Your task to perform on an android device: move an email to a new category in the gmail app Image 0: 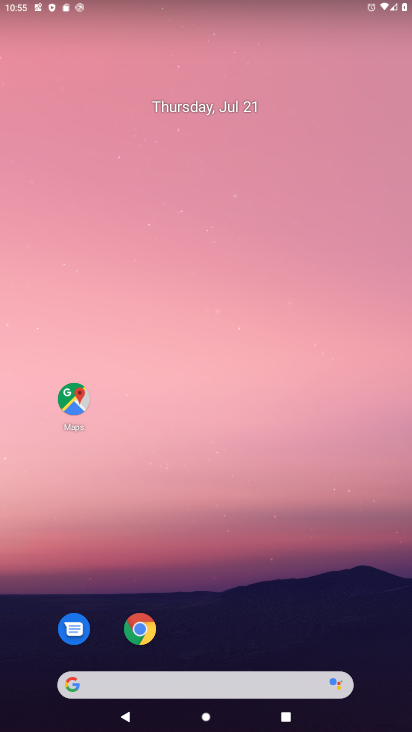
Step 0: drag from (157, 605) to (231, 156)
Your task to perform on an android device: move an email to a new category in the gmail app Image 1: 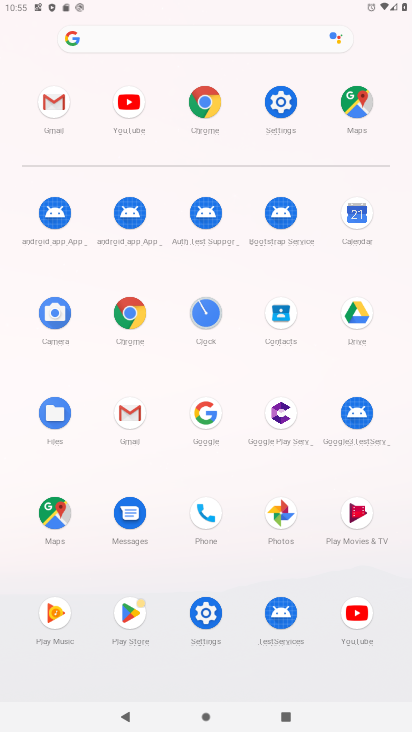
Step 1: click (61, 113)
Your task to perform on an android device: move an email to a new category in the gmail app Image 2: 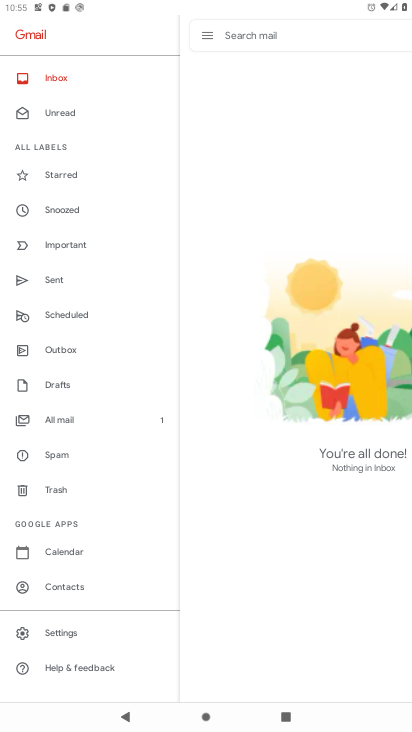
Step 2: click (82, 420)
Your task to perform on an android device: move an email to a new category in the gmail app Image 3: 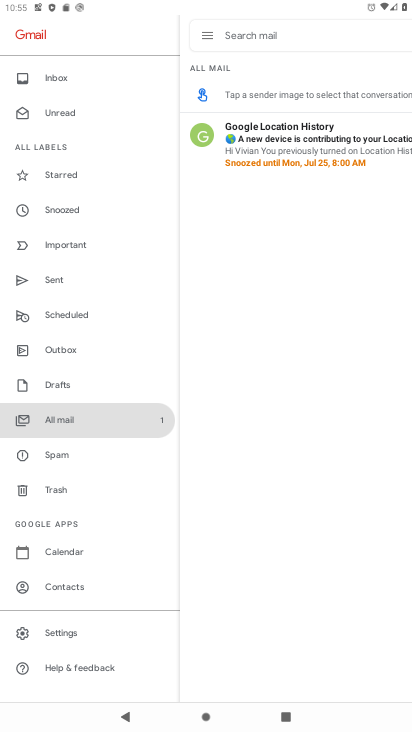
Step 3: click (214, 127)
Your task to perform on an android device: move an email to a new category in the gmail app Image 4: 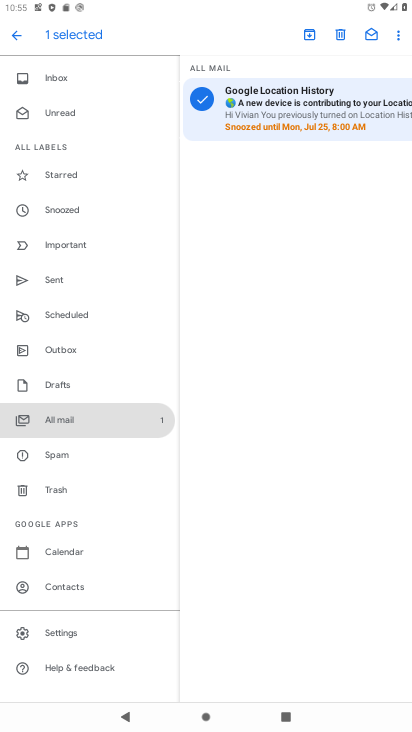
Step 4: click (395, 33)
Your task to perform on an android device: move an email to a new category in the gmail app Image 5: 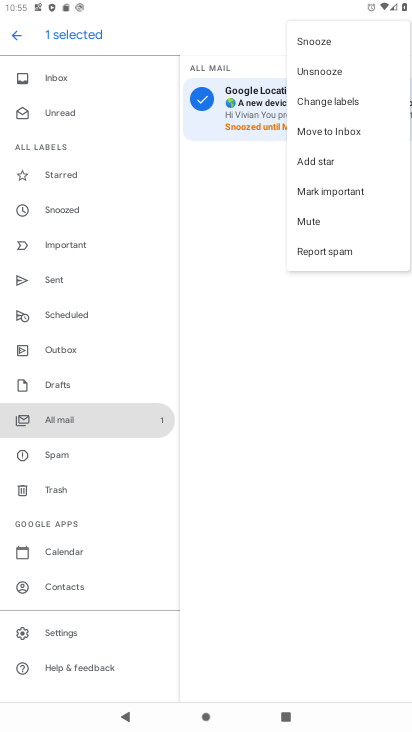
Step 5: click (341, 106)
Your task to perform on an android device: move an email to a new category in the gmail app Image 6: 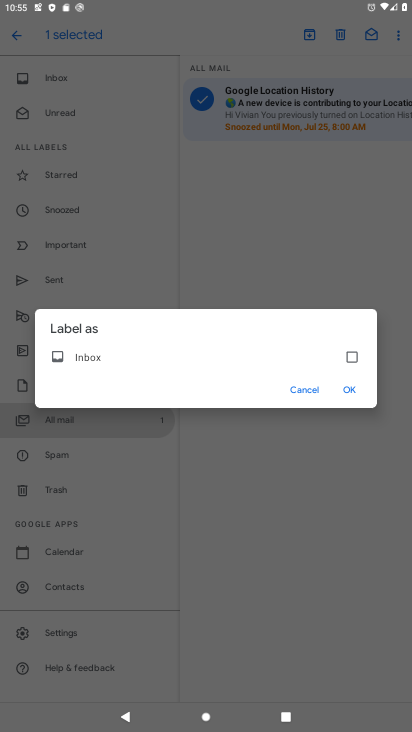
Step 6: click (353, 359)
Your task to perform on an android device: move an email to a new category in the gmail app Image 7: 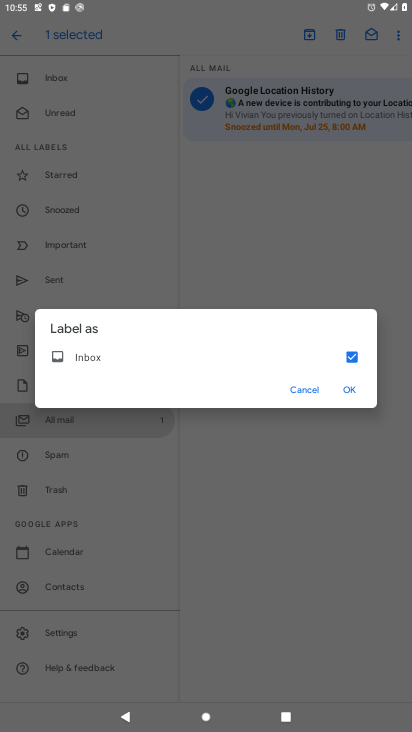
Step 7: click (345, 394)
Your task to perform on an android device: move an email to a new category in the gmail app Image 8: 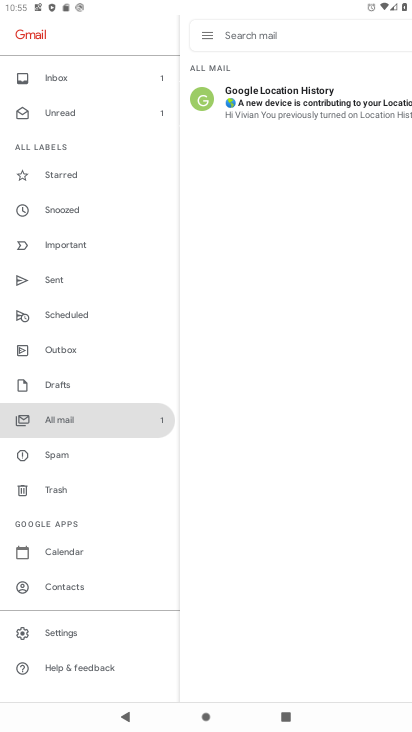
Step 8: task complete